Your task to perform on an android device: open a bookmark in the chrome app Image 0: 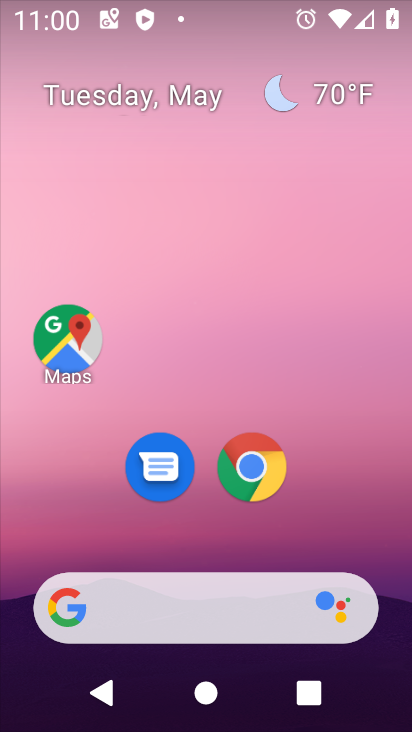
Step 0: click (279, 460)
Your task to perform on an android device: open a bookmark in the chrome app Image 1: 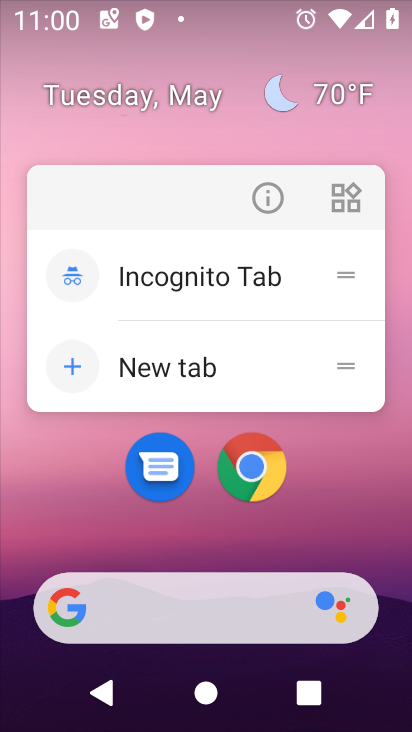
Step 1: click (259, 442)
Your task to perform on an android device: open a bookmark in the chrome app Image 2: 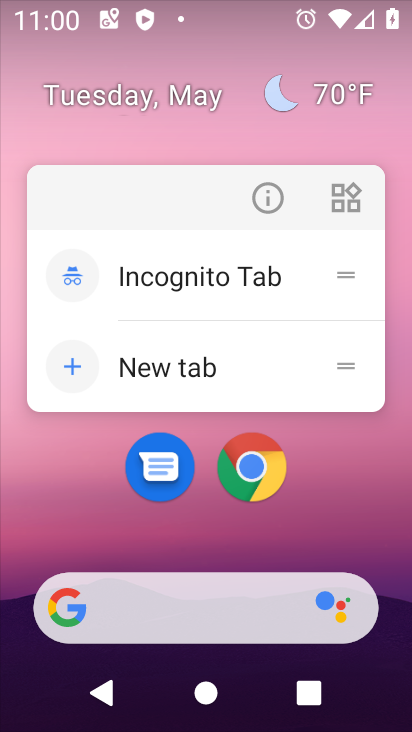
Step 2: click (265, 472)
Your task to perform on an android device: open a bookmark in the chrome app Image 3: 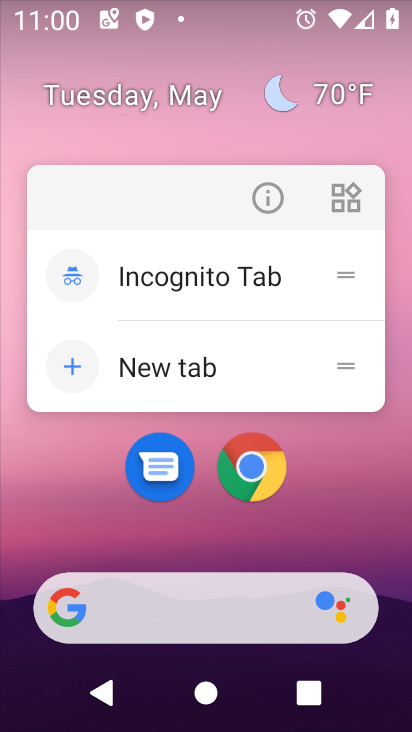
Step 3: click (263, 474)
Your task to perform on an android device: open a bookmark in the chrome app Image 4: 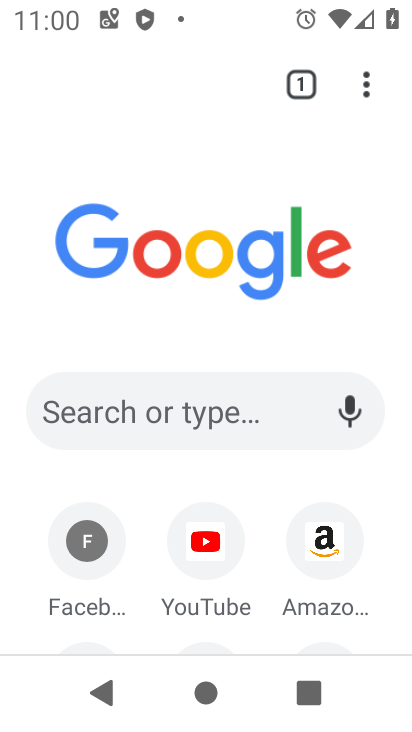
Step 4: task complete